Your task to perform on an android device: Go to Wikipedia Image 0: 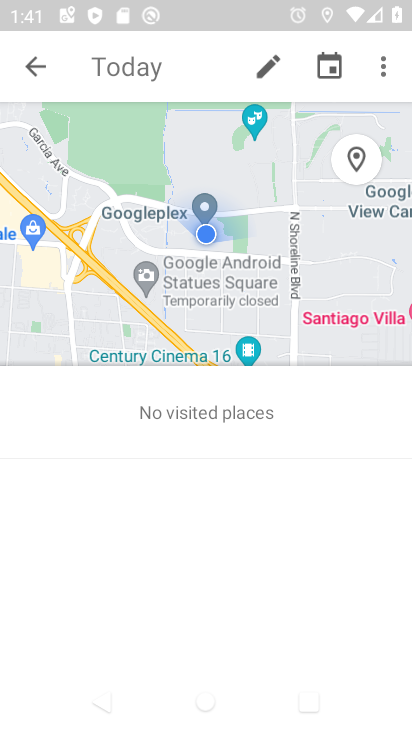
Step 0: click (281, 30)
Your task to perform on an android device: Go to Wikipedia Image 1: 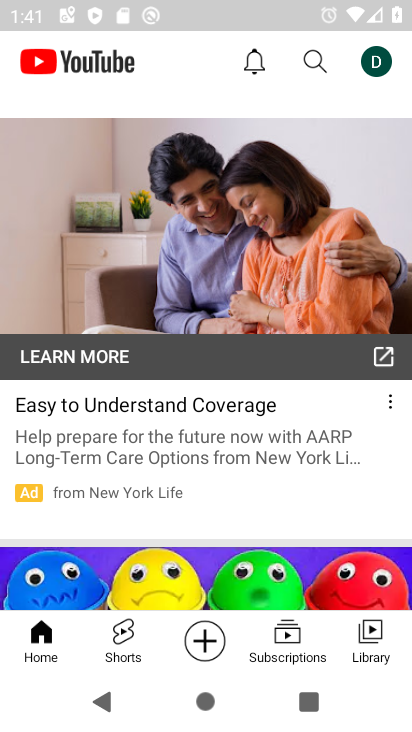
Step 1: press home button
Your task to perform on an android device: Go to Wikipedia Image 2: 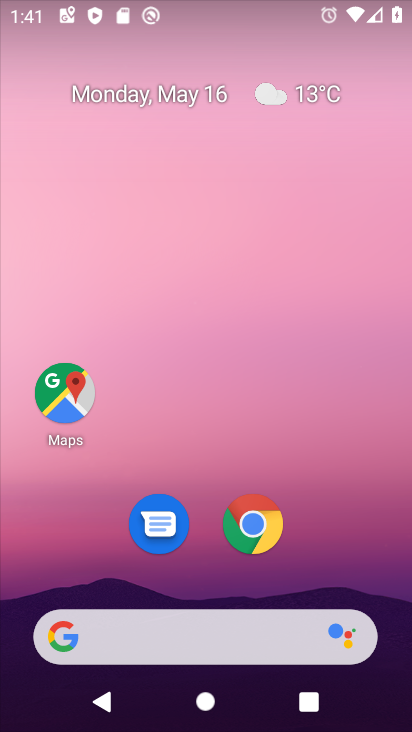
Step 2: click (248, 528)
Your task to perform on an android device: Go to Wikipedia Image 3: 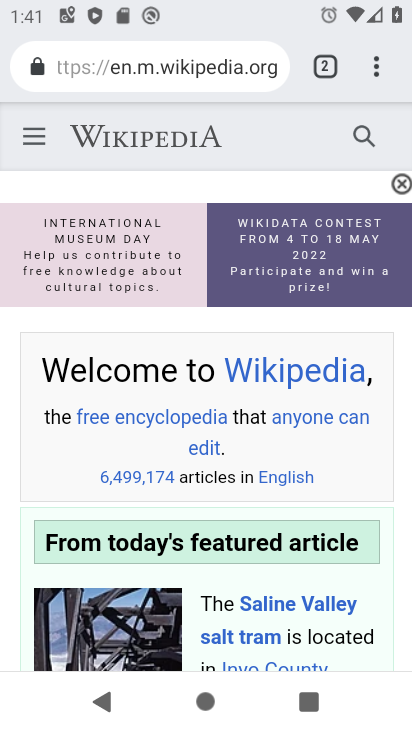
Step 3: task complete